Your task to perform on an android device: Open Yahoo.com Image 0: 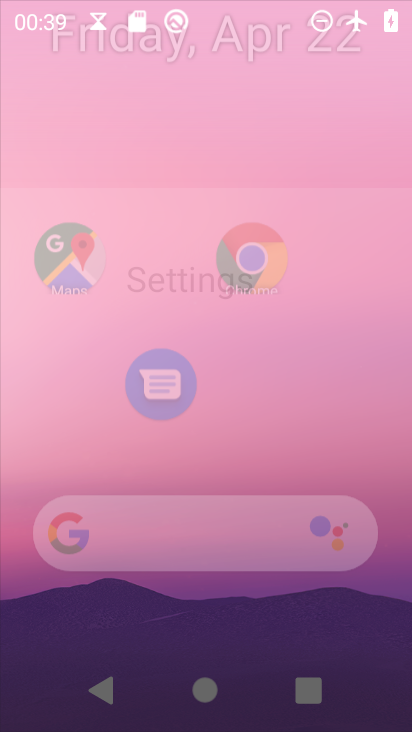
Step 0: click (231, 180)
Your task to perform on an android device: Open Yahoo.com Image 1: 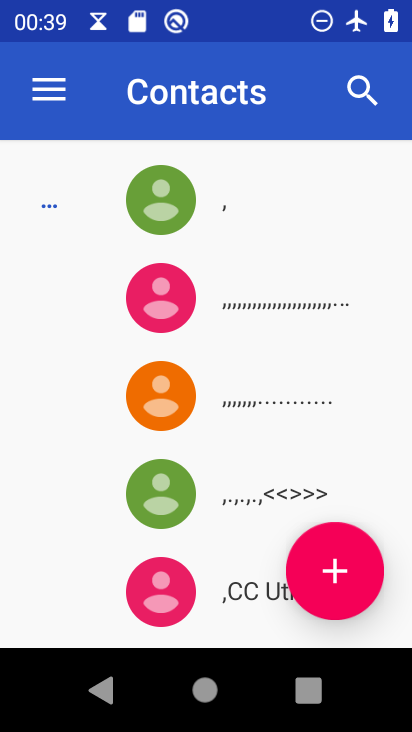
Step 1: press home button
Your task to perform on an android device: Open Yahoo.com Image 2: 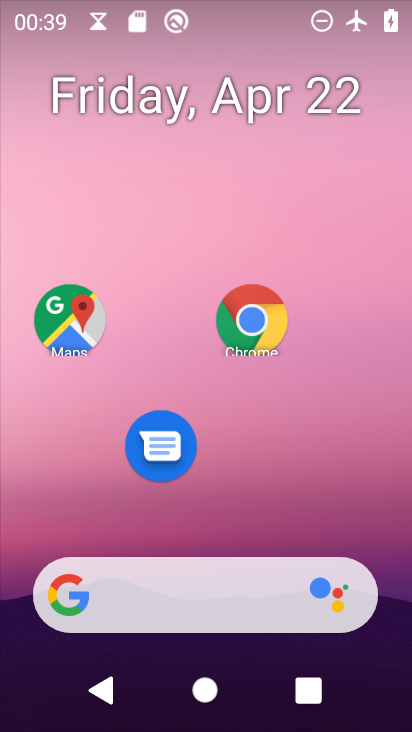
Step 2: click (237, 322)
Your task to perform on an android device: Open Yahoo.com Image 3: 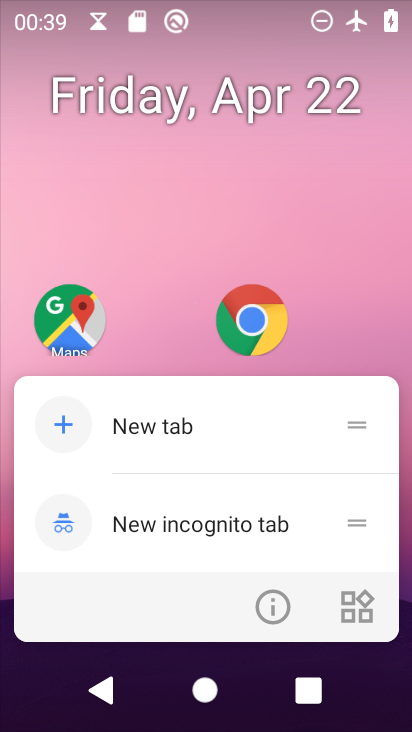
Step 3: click (283, 594)
Your task to perform on an android device: Open Yahoo.com Image 4: 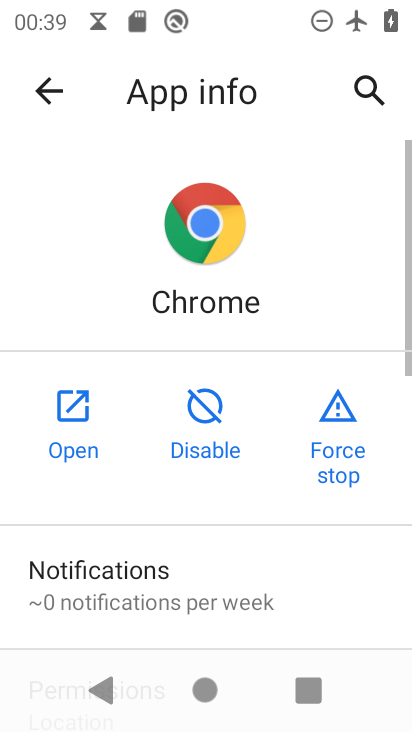
Step 4: click (84, 418)
Your task to perform on an android device: Open Yahoo.com Image 5: 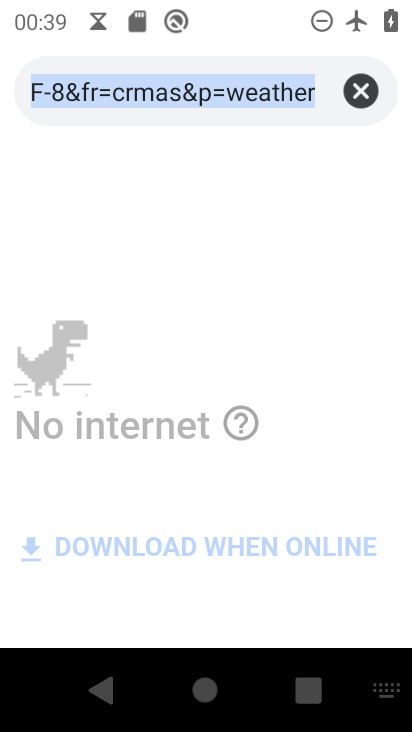
Step 5: click (358, 92)
Your task to perform on an android device: Open Yahoo.com Image 6: 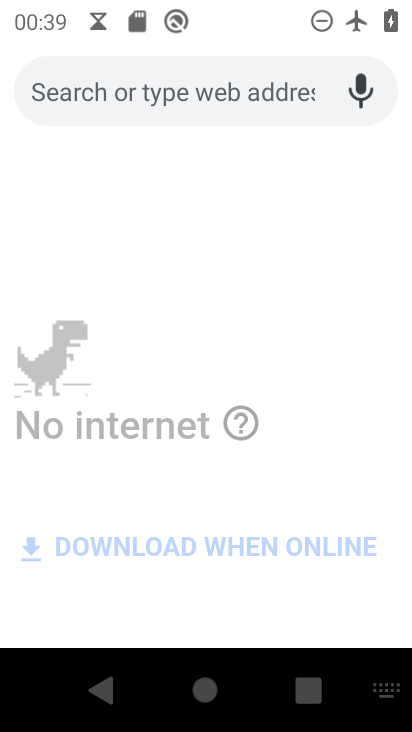
Step 6: type "yahoo.com"
Your task to perform on an android device: Open Yahoo.com Image 7: 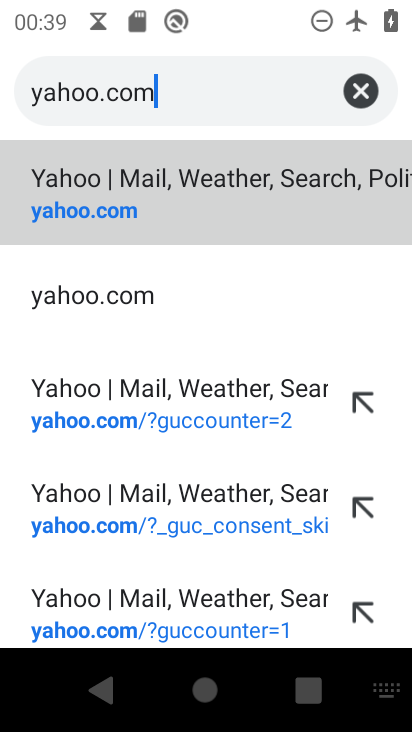
Step 7: click (101, 200)
Your task to perform on an android device: Open Yahoo.com Image 8: 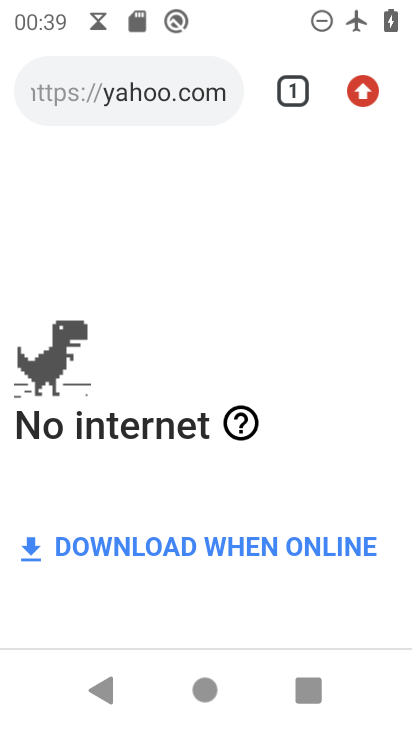
Step 8: task complete